Your task to perform on an android device: Open calendar and show me the third week of next month Image 0: 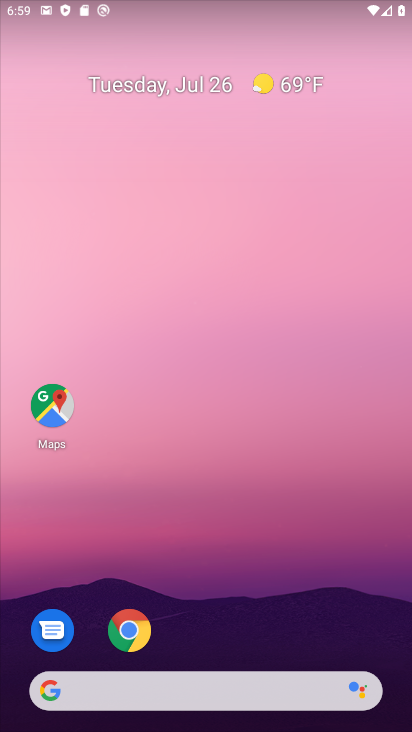
Step 0: drag from (227, 598) to (261, 168)
Your task to perform on an android device: Open calendar and show me the third week of next month Image 1: 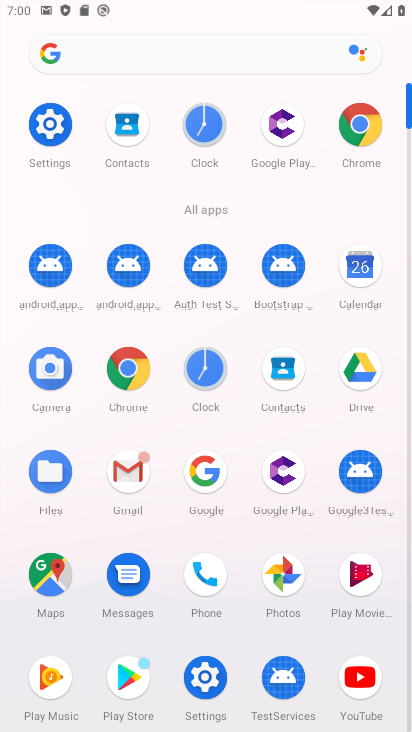
Step 1: click (370, 267)
Your task to perform on an android device: Open calendar and show me the third week of next month Image 2: 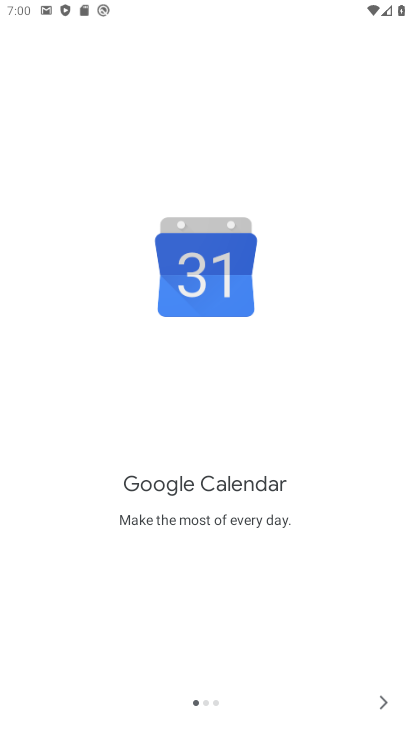
Step 2: click (391, 705)
Your task to perform on an android device: Open calendar and show me the third week of next month Image 3: 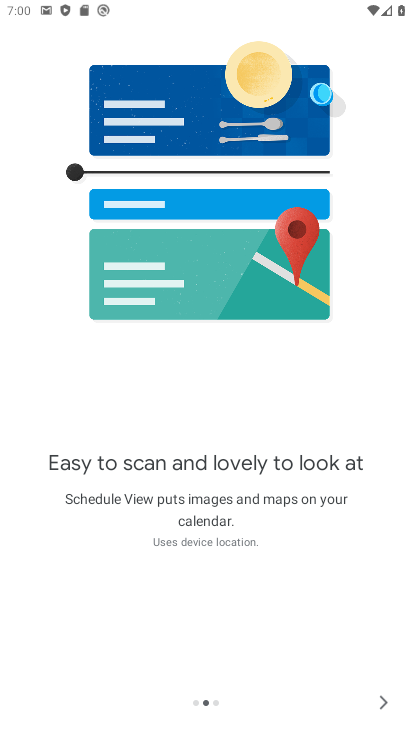
Step 3: click (391, 705)
Your task to perform on an android device: Open calendar and show me the third week of next month Image 4: 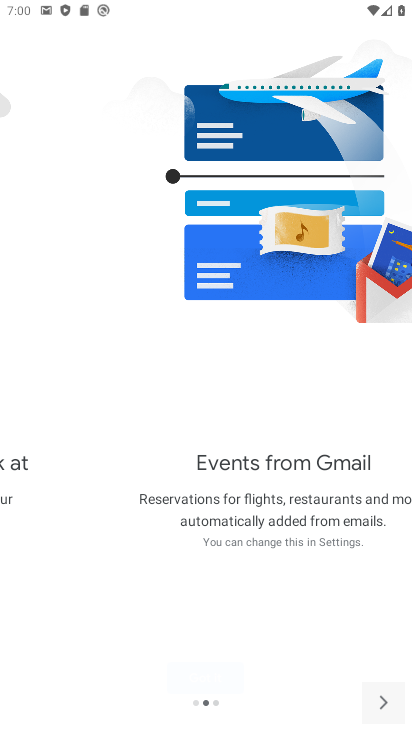
Step 4: click (391, 705)
Your task to perform on an android device: Open calendar and show me the third week of next month Image 5: 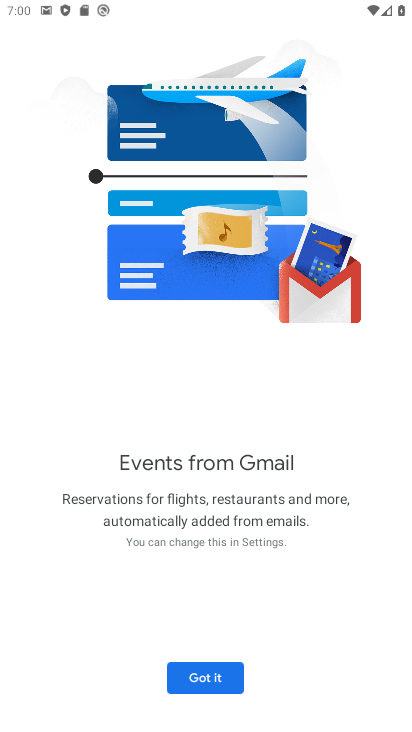
Step 5: click (391, 705)
Your task to perform on an android device: Open calendar and show me the third week of next month Image 6: 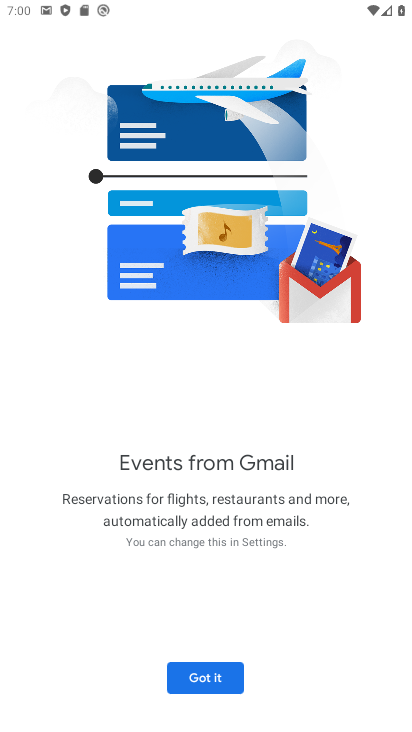
Step 6: click (230, 667)
Your task to perform on an android device: Open calendar and show me the third week of next month Image 7: 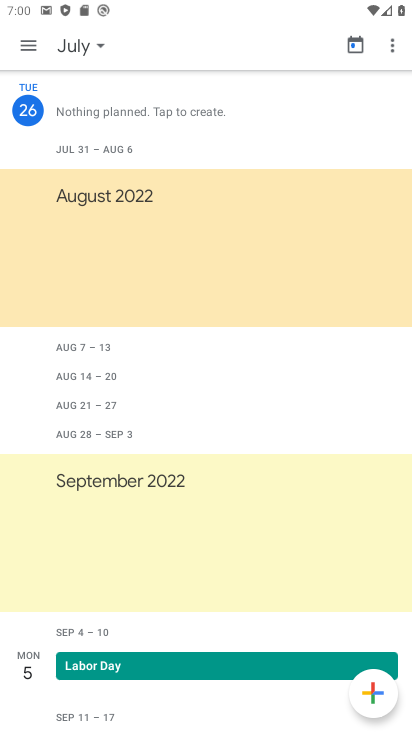
Step 7: click (99, 50)
Your task to perform on an android device: Open calendar and show me the third week of next month Image 8: 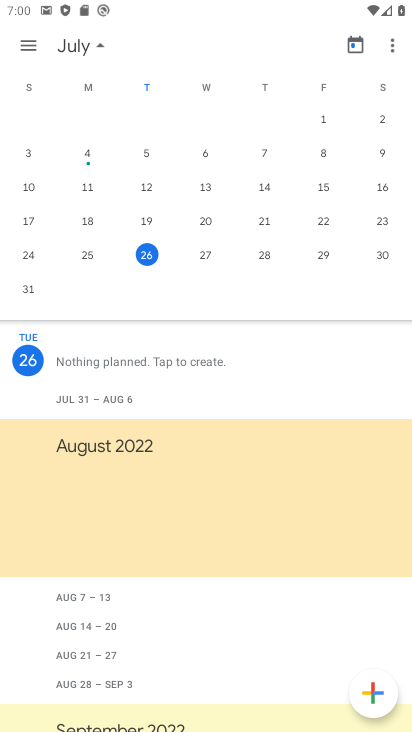
Step 8: drag from (302, 231) to (0, 179)
Your task to perform on an android device: Open calendar and show me the third week of next month Image 9: 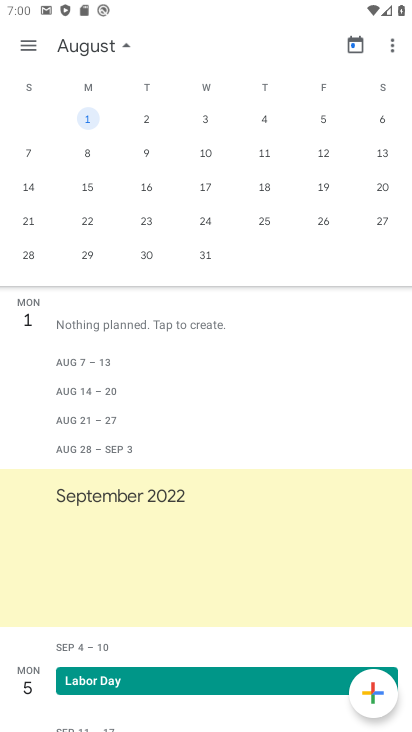
Step 9: click (33, 186)
Your task to perform on an android device: Open calendar and show me the third week of next month Image 10: 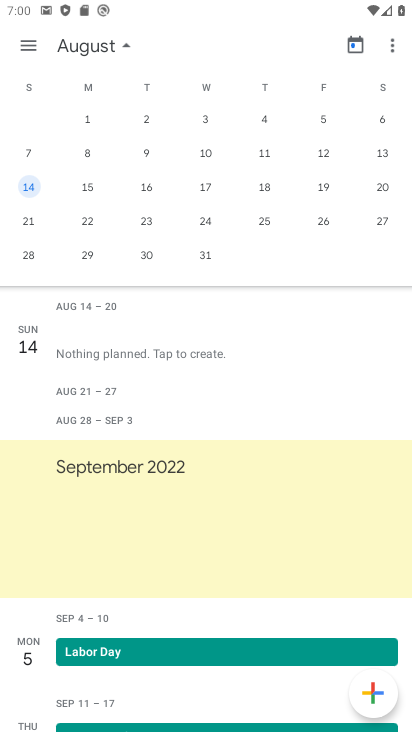
Step 10: click (114, 49)
Your task to perform on an android device: Open calendar and show me the third week of next month Image 11: 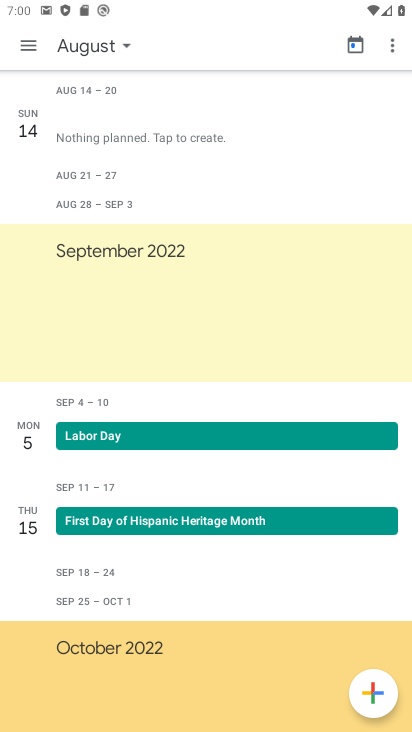
Step 11: task complete